Your task to perform on an android device: Check the weather Image 0: 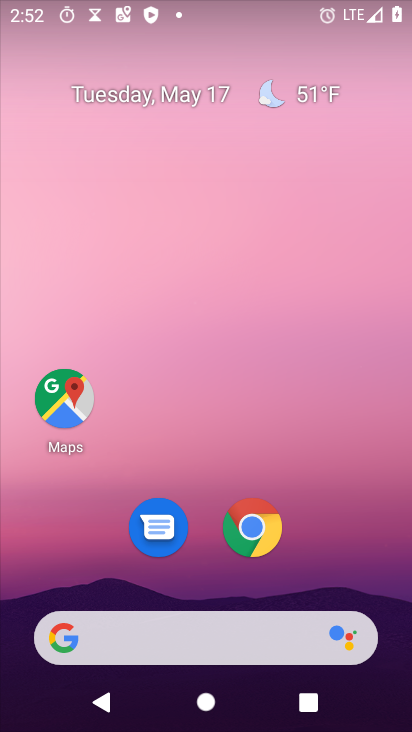
Step 0: drag from (338, 553) to (246, 171)
Your task to perform on an android device: Check the weather Image 1: 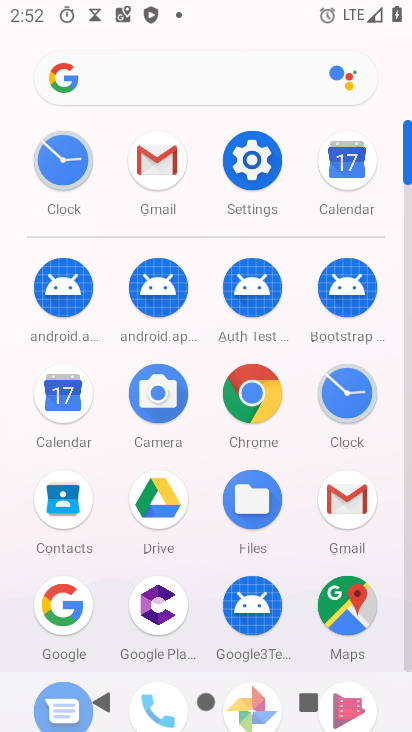
Step 1: click (57, 603)
Your task to perform on an android device: Check the weather Image 2: 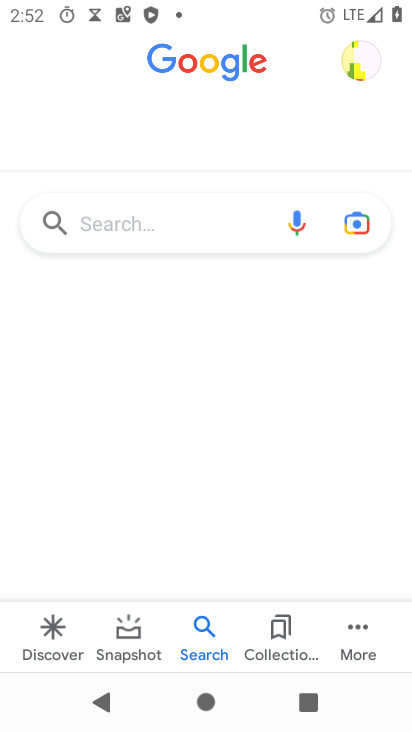
Step 2: click (153, 233)
Your task to perform on an android device: Check the weather Image 3: 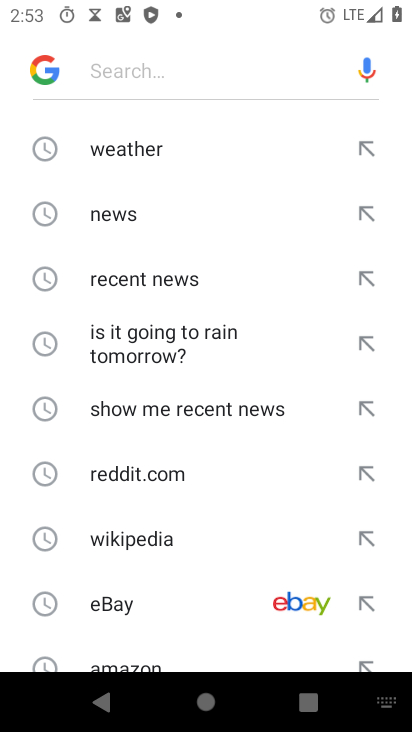
Step 3: click (150, 151)
Your task to perform on an android device: Check the weather Image 4: 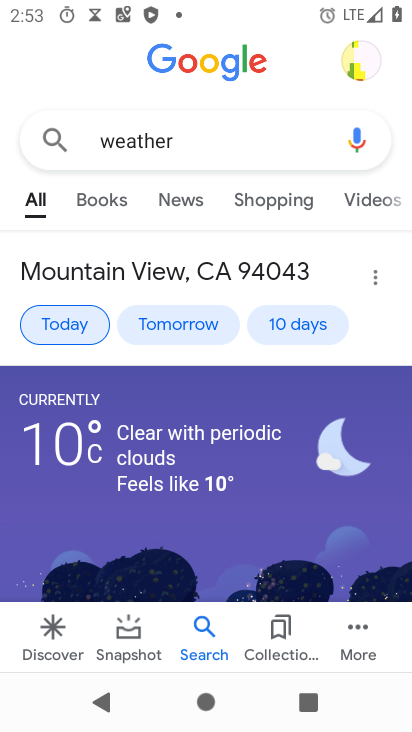
Step 4: task complete